Your task to perform on an android device: Go to Google Image 0: 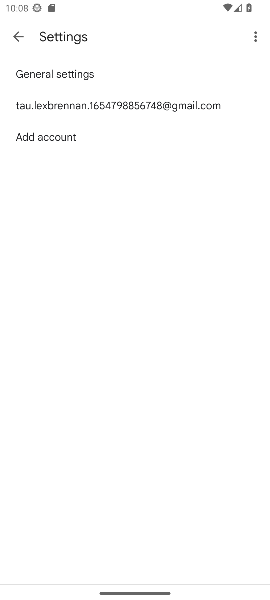
Step 0: press home button
Your task to perform on an android device: Go to Google Image 1: 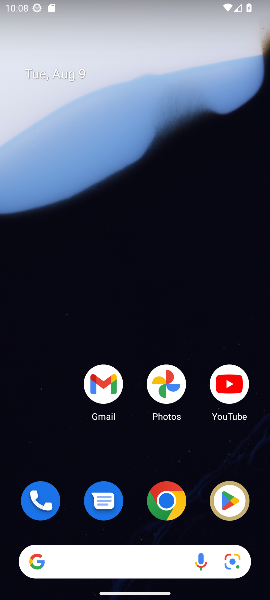
Step 1: click (108, 560)
Your task to perform on an android device: Go to Google Image 2: 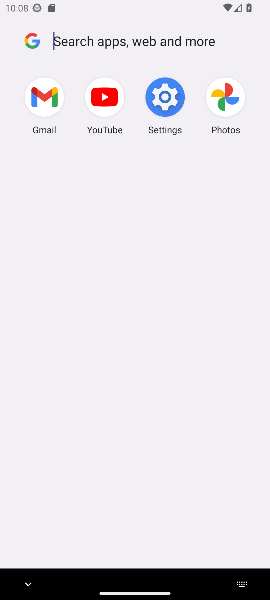
Step 2: task complete